Your task to perform on an android device: Go to CNN.com Image 0: 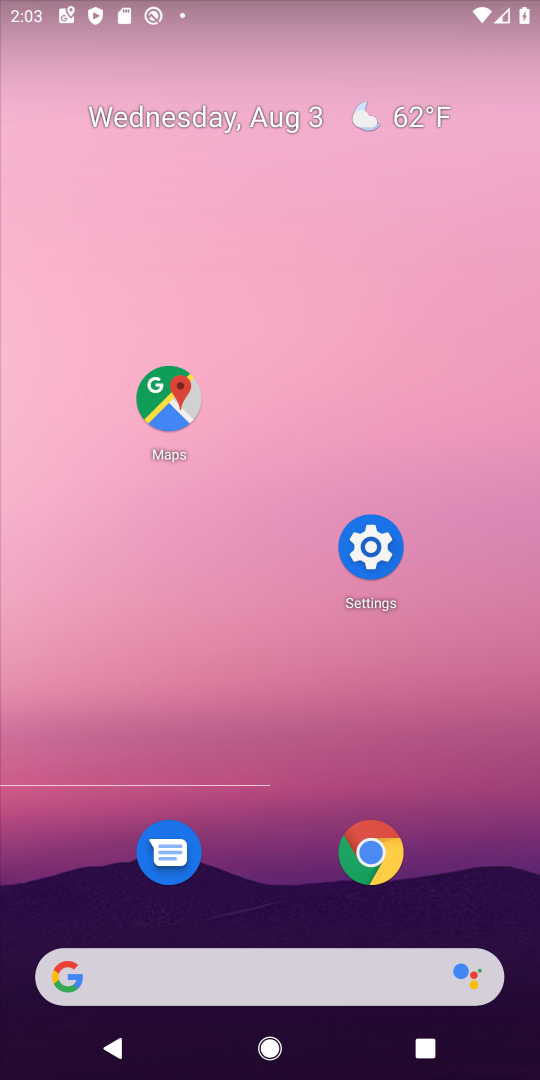
Step 0: press home button
Your task to perform on an android device: Go to CNN.com Image 1: 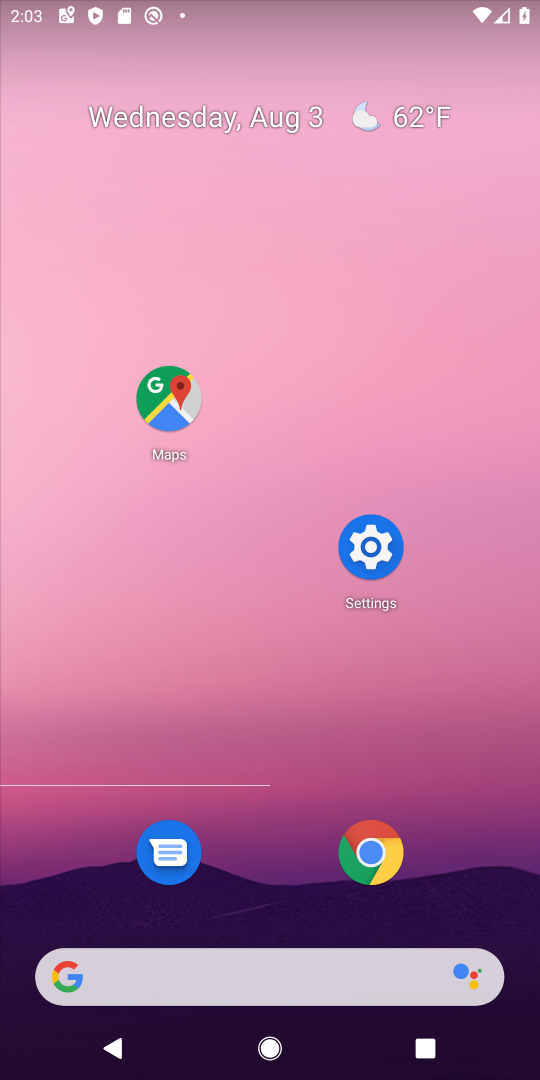
Step 1: click (368, 863)
Your task to perform on an android device: Go to CNN.com Image 2: 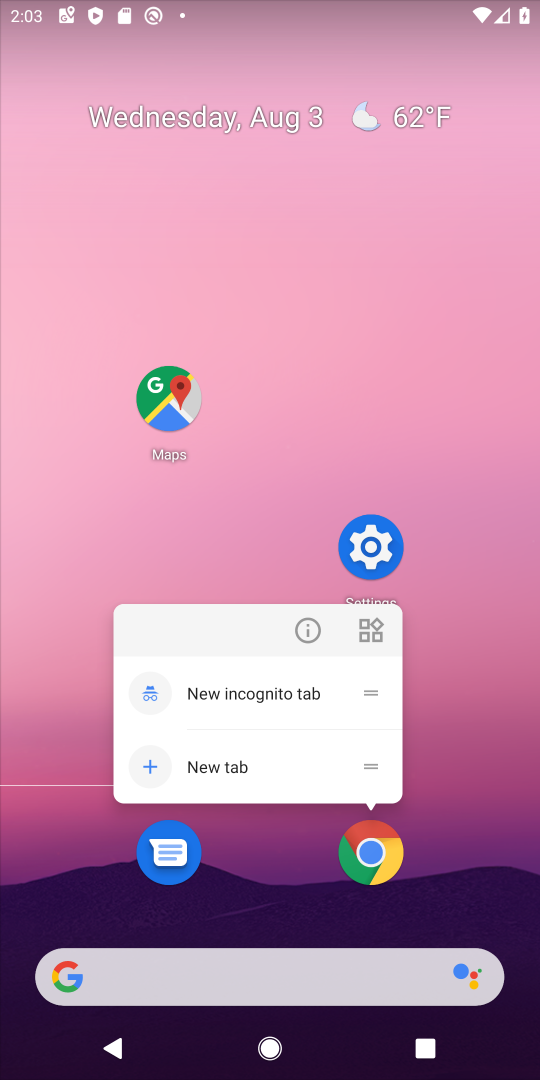
Step 2: click (369, 846)
Your task to perform on an android device: Go to CNN.com Image 3: 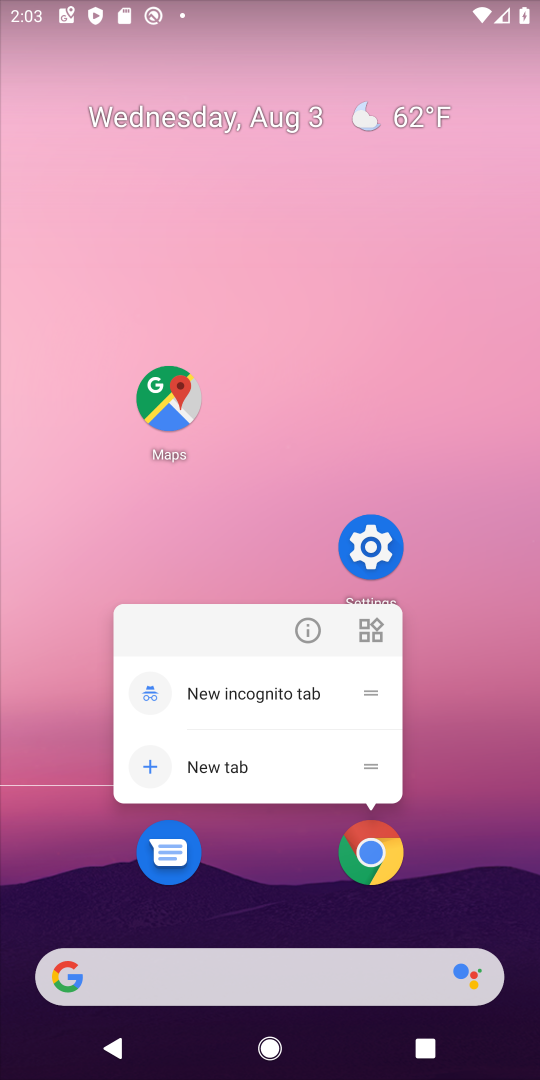
Step 3: click (369, 846)
Your task to perform on an android device: Go to CNN.com Image 4: 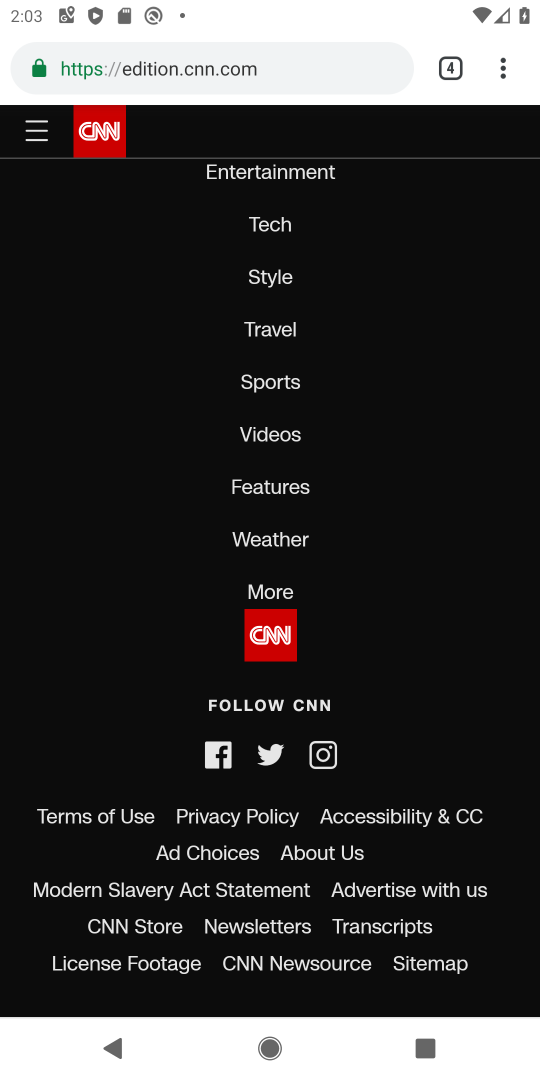
Step 4: task complete